Your task to perform on an android device: turn off airplane mode Image 0: 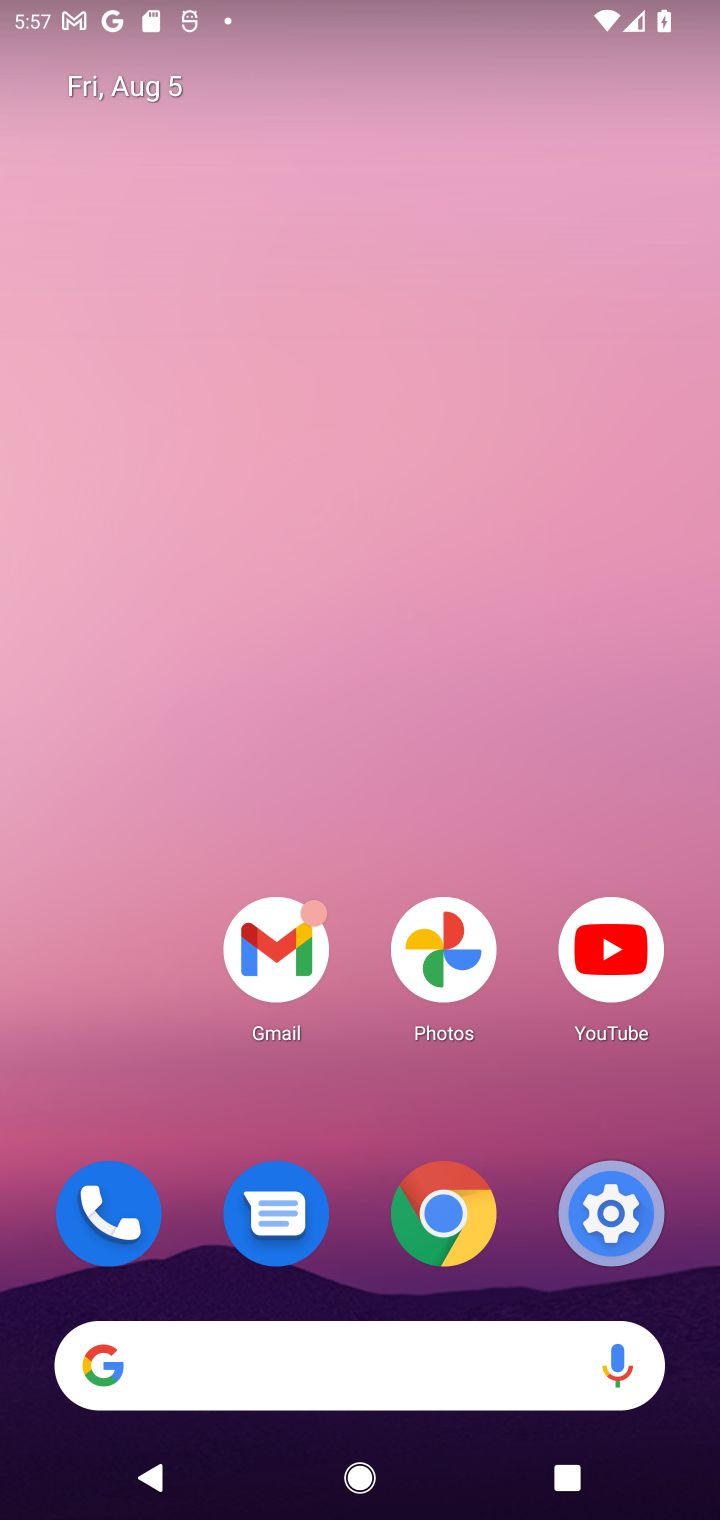
Step 0: click (606, 1230)
Your task to perform on an android device: turn off airplane mode Image 1: 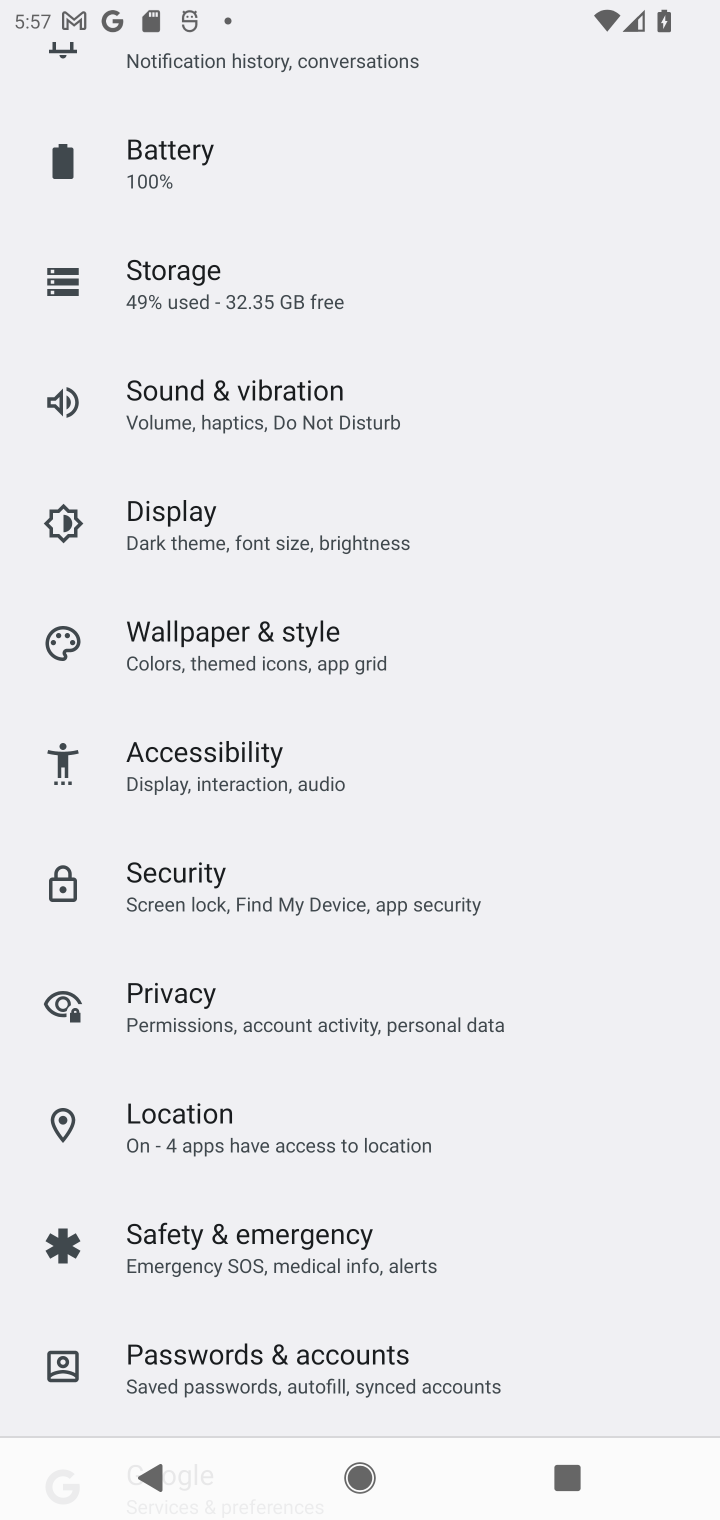
Step 1: drag from (376, 496) to (417, 1501)
Your task to perform on an android device: turn off airplane mode Image 2: 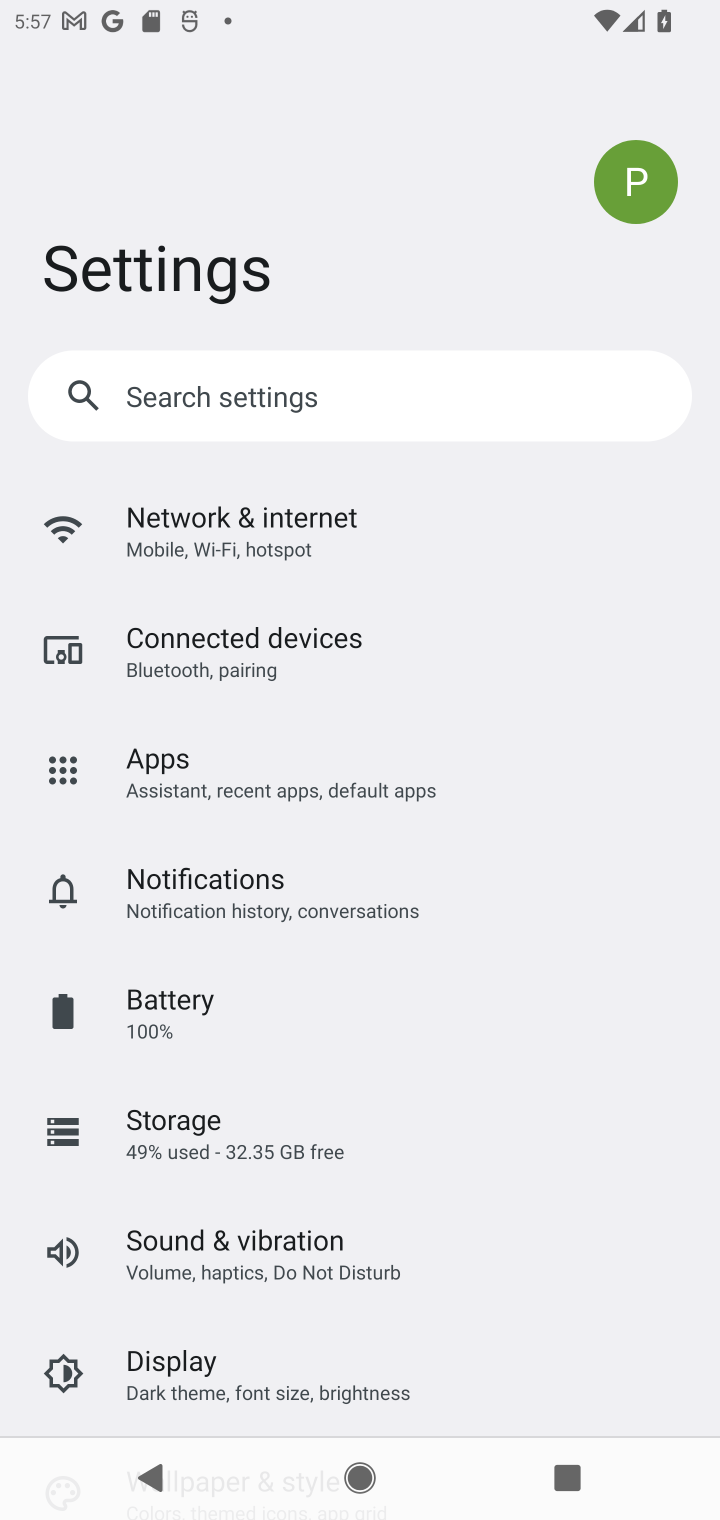
Step 2: drag from (219, 355) to (198, 887)
Your task to perform on an android device: turn off airplane mode Image 3: 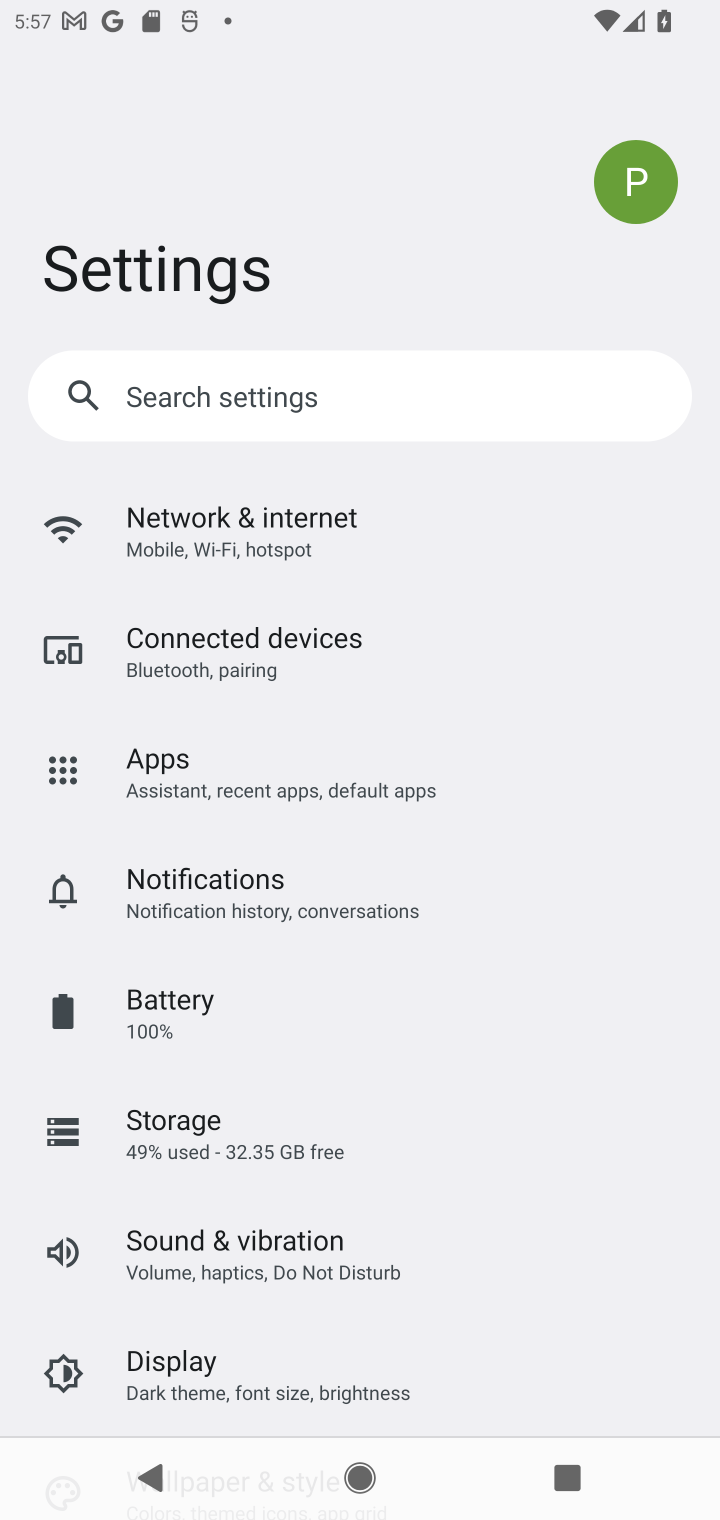
Step 3: click (303, 519)
Your task to perform on an android device: turn off airplane mode Image 4: 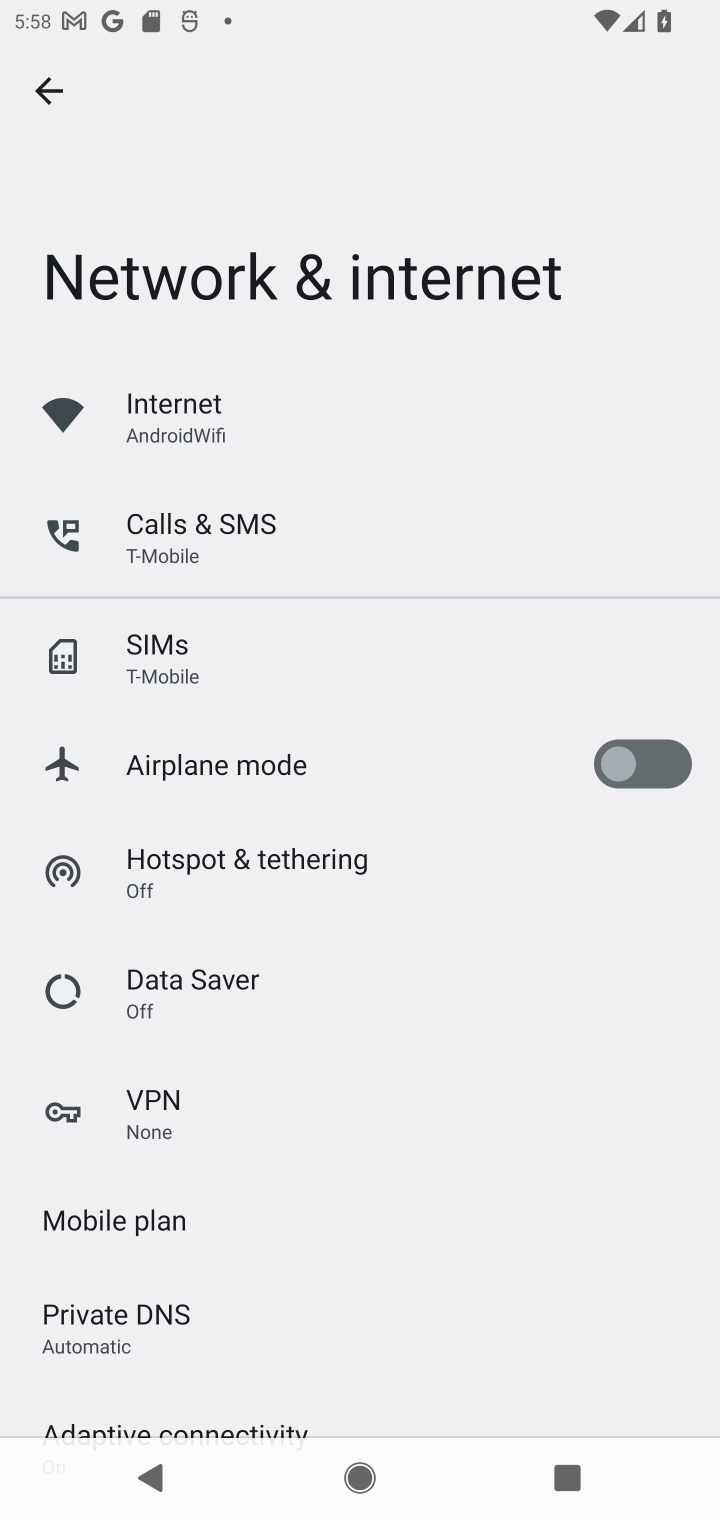
Step 4: task complete